Your task to perform on an android device: Open location settings Image 0: 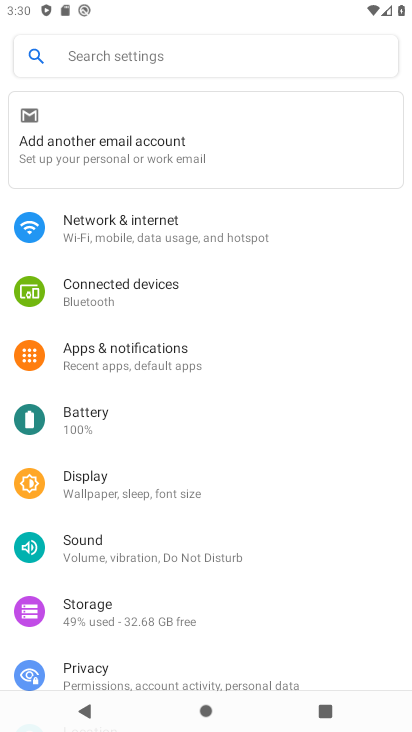
Step 0: drag from (157, 610) to (171, 301)
Your task to perform on an android device: Open location settings Image 1: 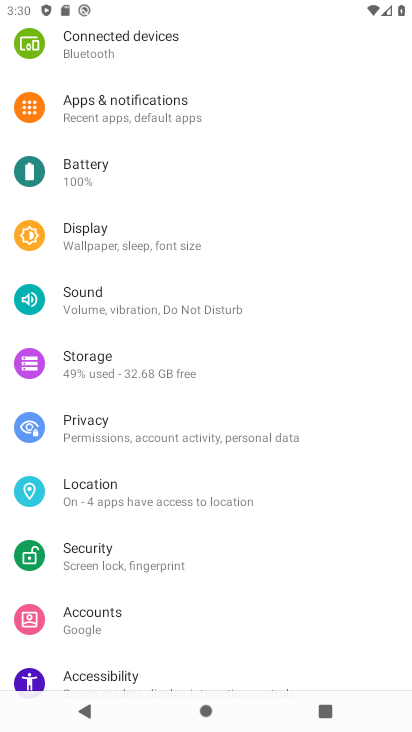
Step 1: drag from (195, 563) to (195, 360)
Your task to perform on an android device: Open location settings Image 2: 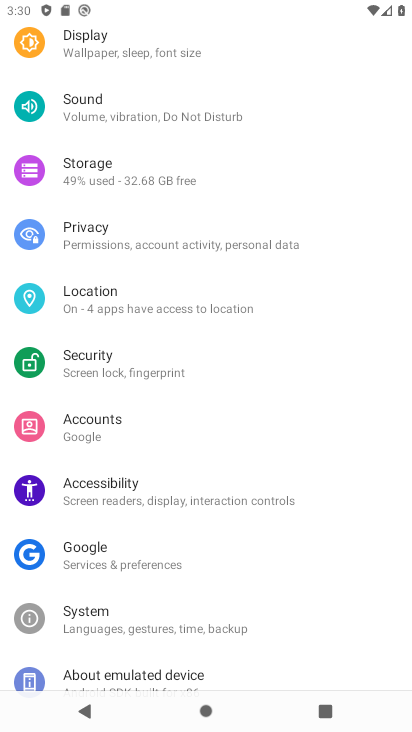
Step 2: drag from (85, 543) to (85, 222)
Your task to perform on an android device: Open location settings Image 3: 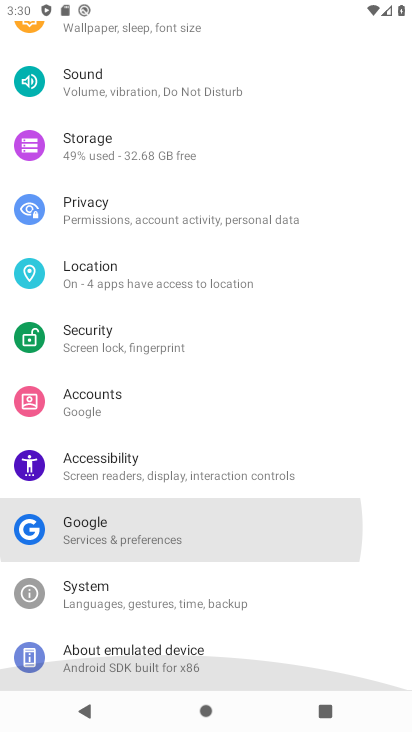
Step 3: drag from (145, 468) to (146, 215)
Your task to perform on an android device: Open location settings Image 4: 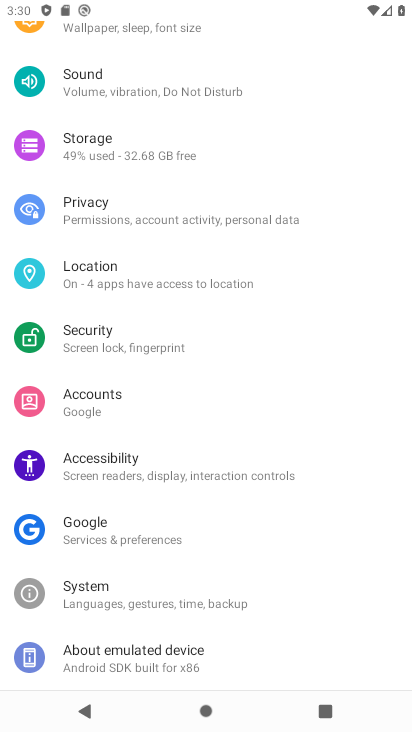
Step 4: click (133, 278)
Your task to perform on an android device: Open location settings Image 5: 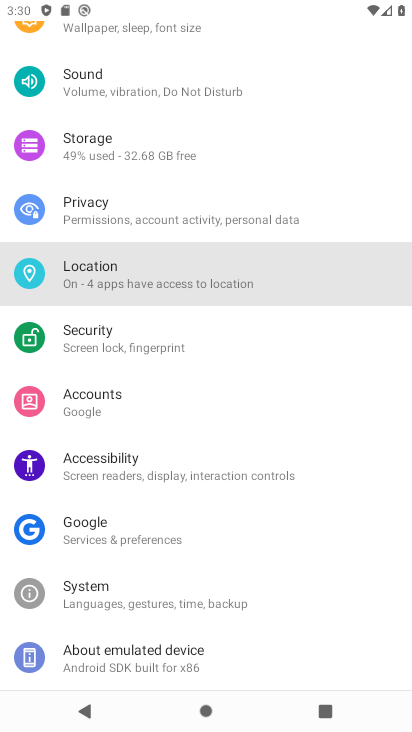
Step 5: click (133, 278)
Your task to perform on an android device: Open location settings Image 6: 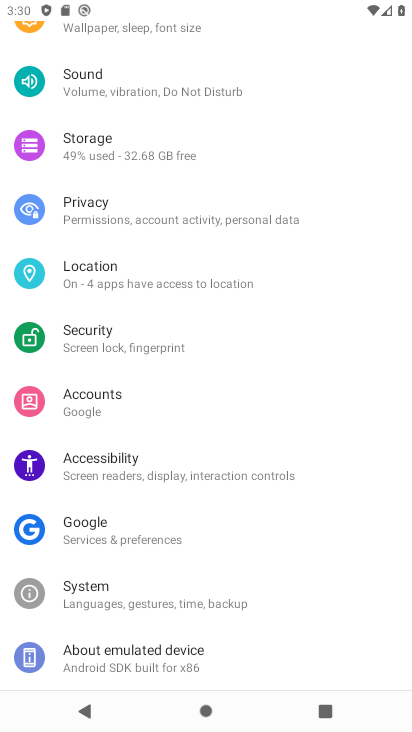
Step 6: click (134, 279)
Your task to perform on an android device: Open location settings Image 7: 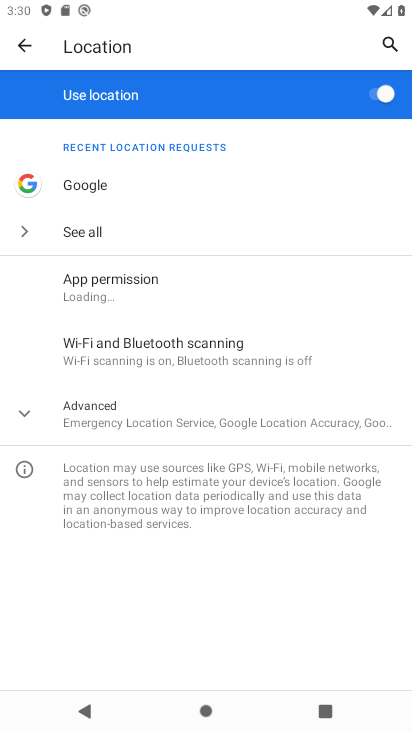
Step 7: task complete